Your task to perform on an android device: Find coffee shops on Maps Image 0: 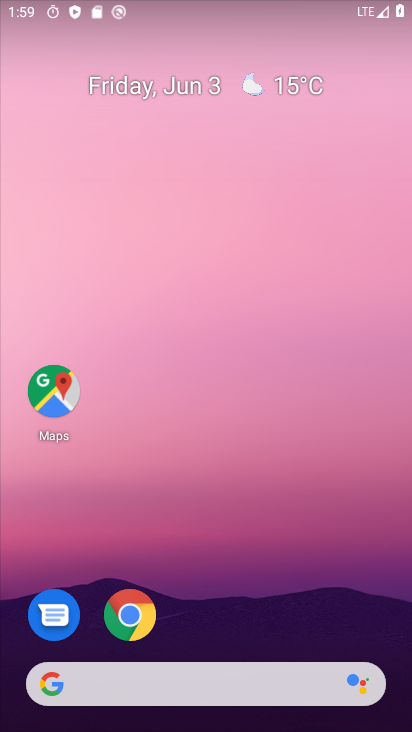
Step 0: drag from (210, 552) to (221, 15)
Your task to perform on an android device: Find coffee shops on Maps Image 1: 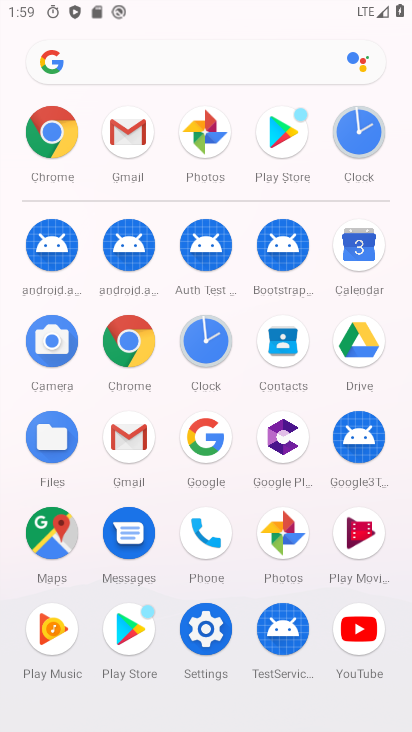
Step 1: click (59, 509)
Your task to perform on an android device: Find coffee shops on Maps Image 2: 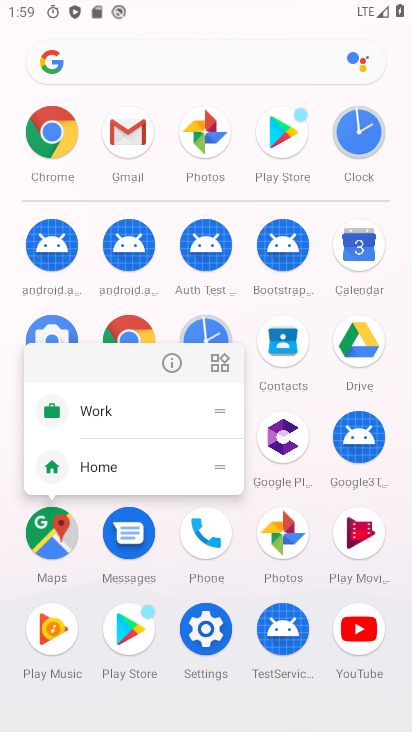
Step 2: click (165, 372)
Your task to perform on an android device: Find coffee shops on Maps Image 3: 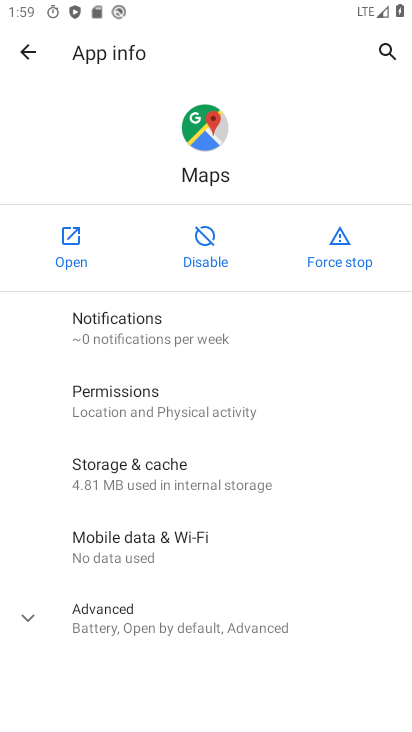
Step 3: click (77, 259)
Your task to perform on an android device: Find coffee shops on Maps Image 4: 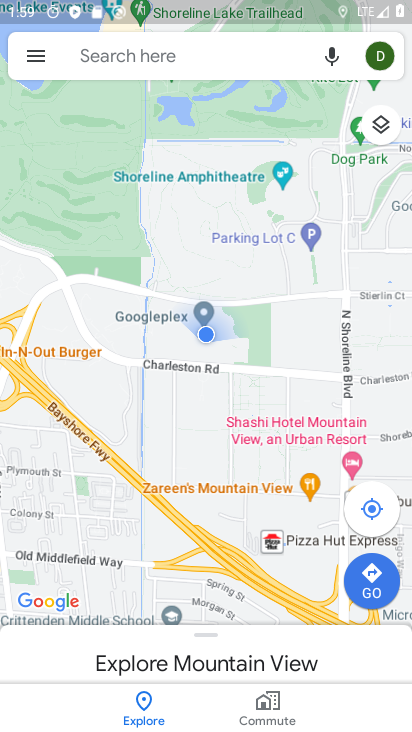
Step 4: click (146, 53)
Your task to perform on an android device: Find coffee shops on Maps Image 5: 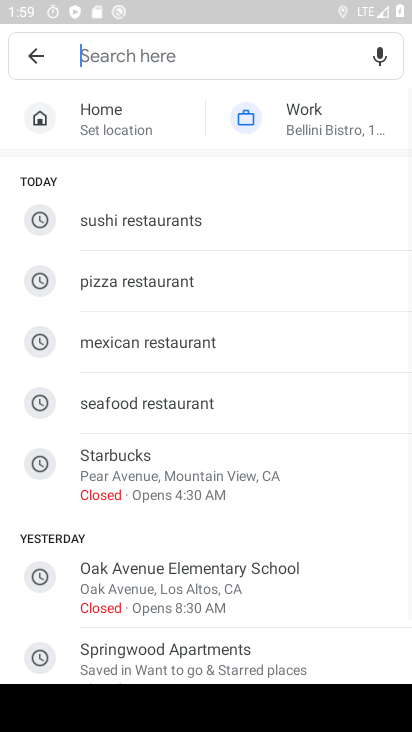
Step 5: drag from (187, 479) to (200, 207)
Your task to perform on an android device: Find coffee shops on Maps Image 6: 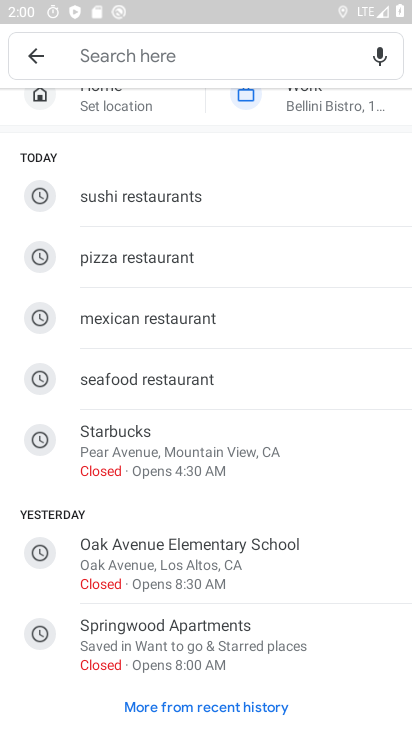
Step 6: drag from (160, 224) to (226, 587)
Your task to perform on an android device: Find coffee shops on Maps Image 7: 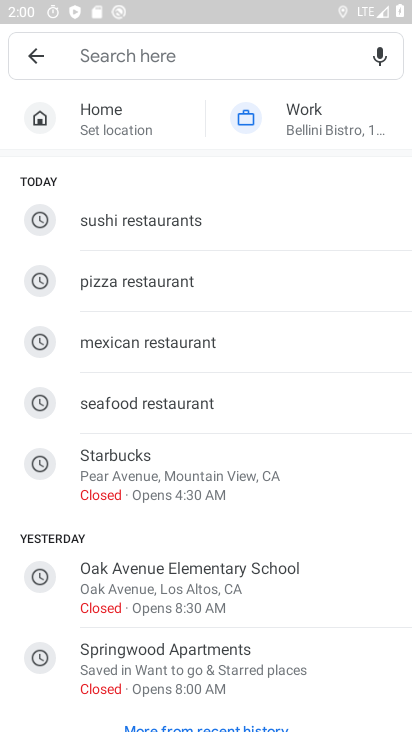
Step 7: click (110, 44)
Your task to perform on an android device: Find coffee shops on Maps Image 8: 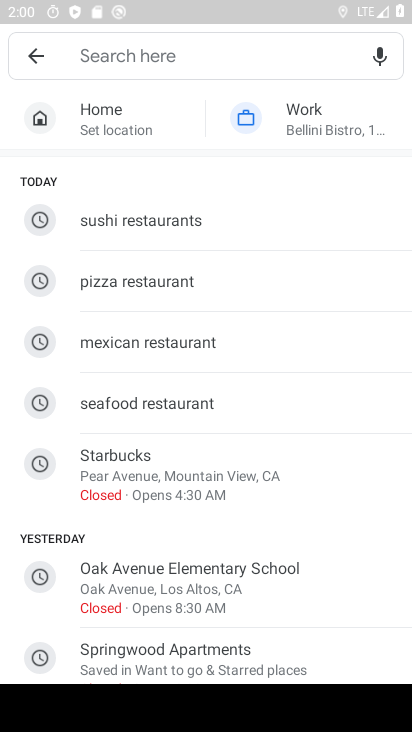
Step 8: type "coffee"
Your task to perform on an android device: Find coffee shops on Maps Image 9: 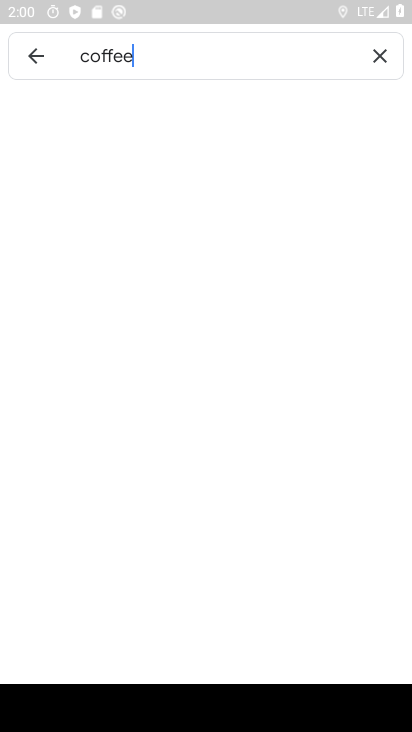
Step 9: type ""
Your task to perform on an android device: Find coffee shops on Maps Image 10: 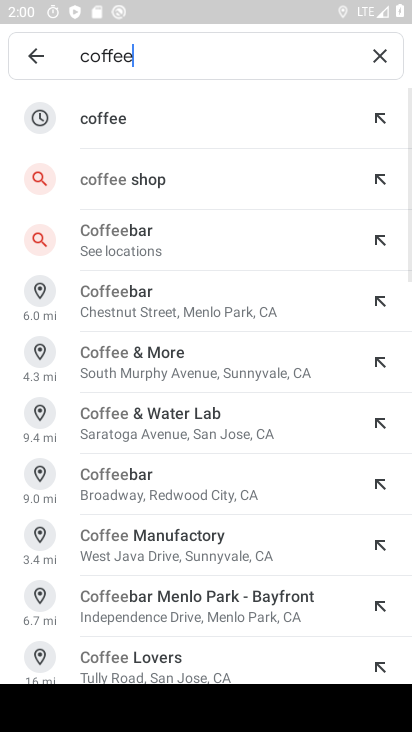
Step 10: click (170, 125)
Your task to perform on an android device: Find coffee shops on Maps Image 11: 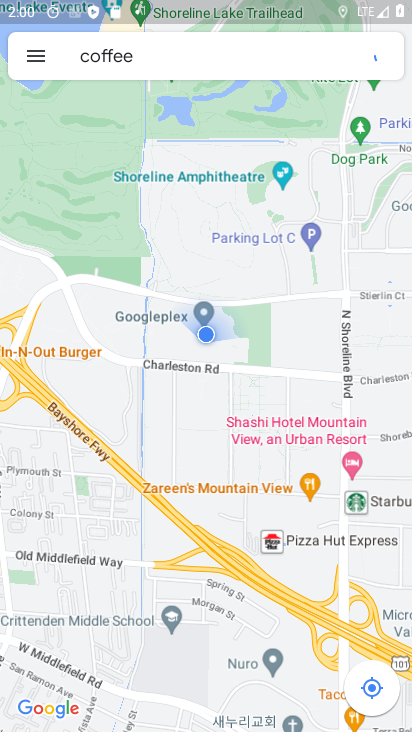
Step 11: drag from (201, 613) to (302, 58)
Your task to perform on an android device: Find coffee shops on Maps Image 12: 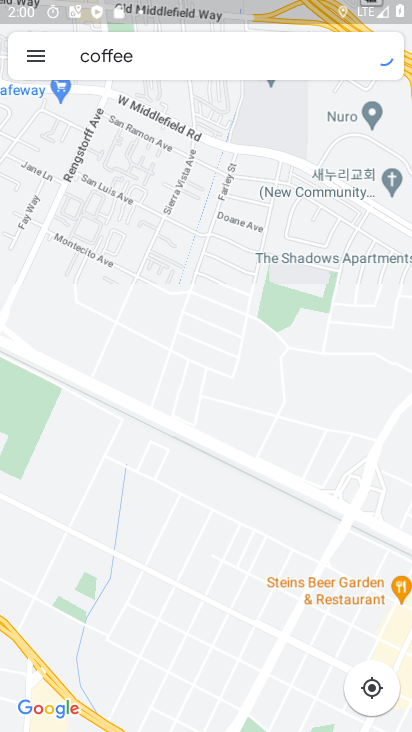
Step 12: click (271, 149)
Your task to perform on an android device: Find coffee shops on Maps Image 13: 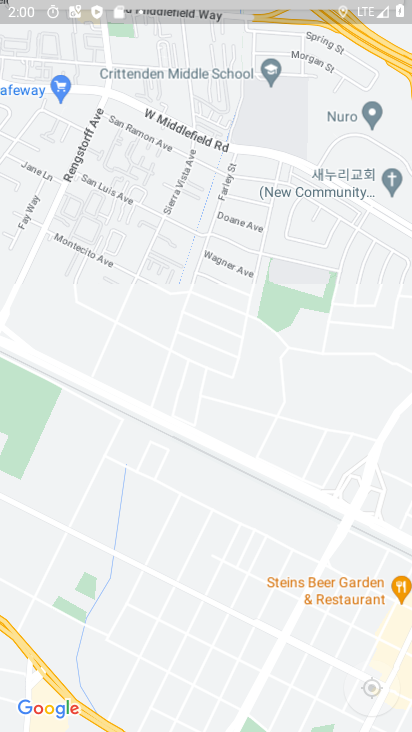
Step 13: task complete